Your task to perform on an android device: Show me the best rated vacuum on Walmart. Image 0: 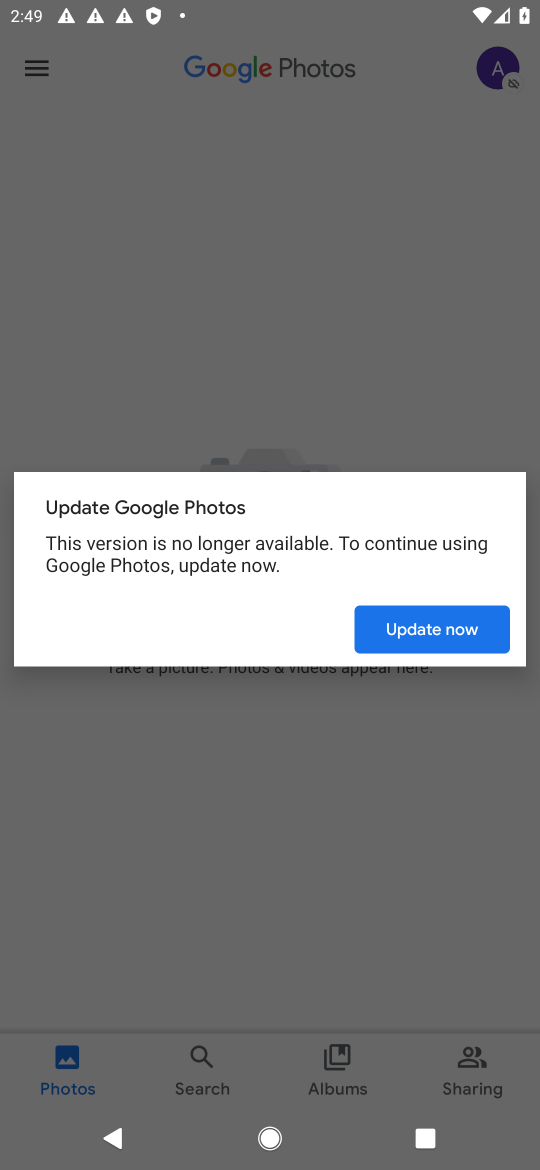
Step 0: press home button
Your task to perform on an android device: Show me the best rated vacuum on Walmart. Image 1: 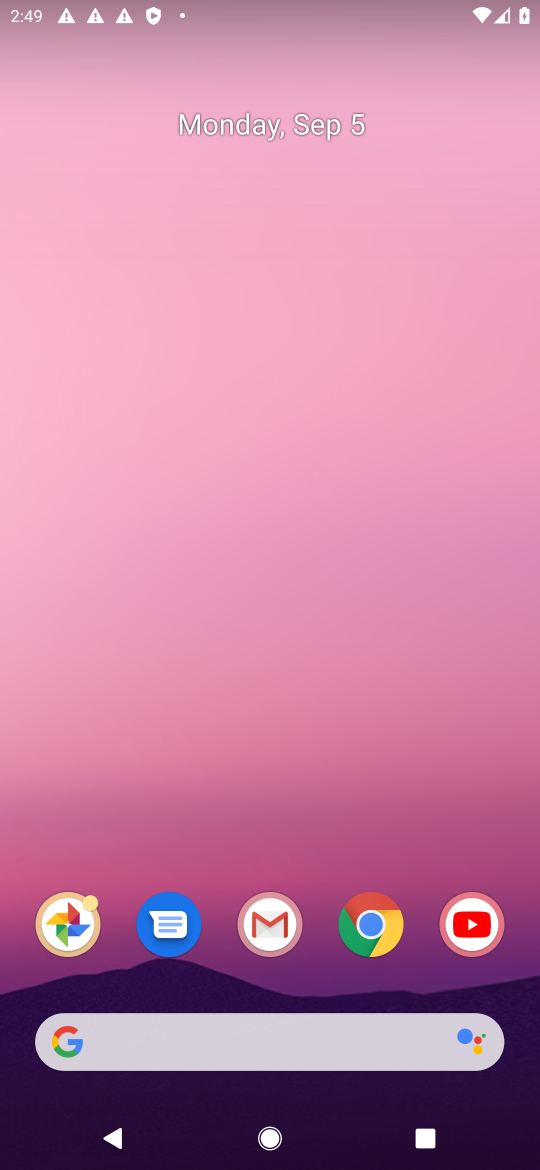
Step 1: click (352, 926)
Your task to perform on an android device: Show me the best rated vacuum on Walmart. Image 2: 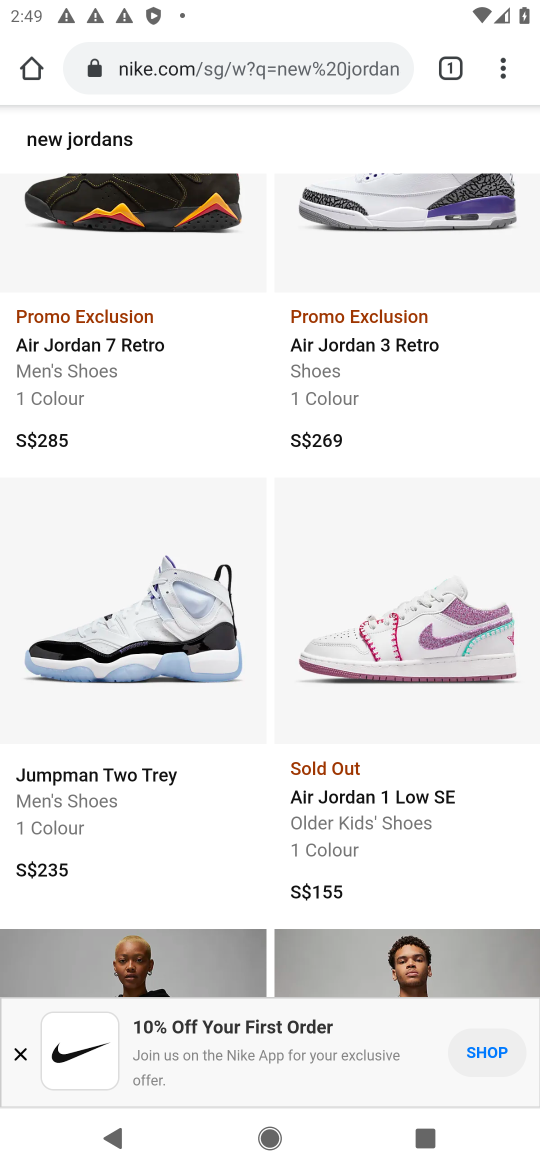
Step 2: click (295, 77)
Your task to perform on an android device: Show me the best rated vacuum on Walmart. Image 3: 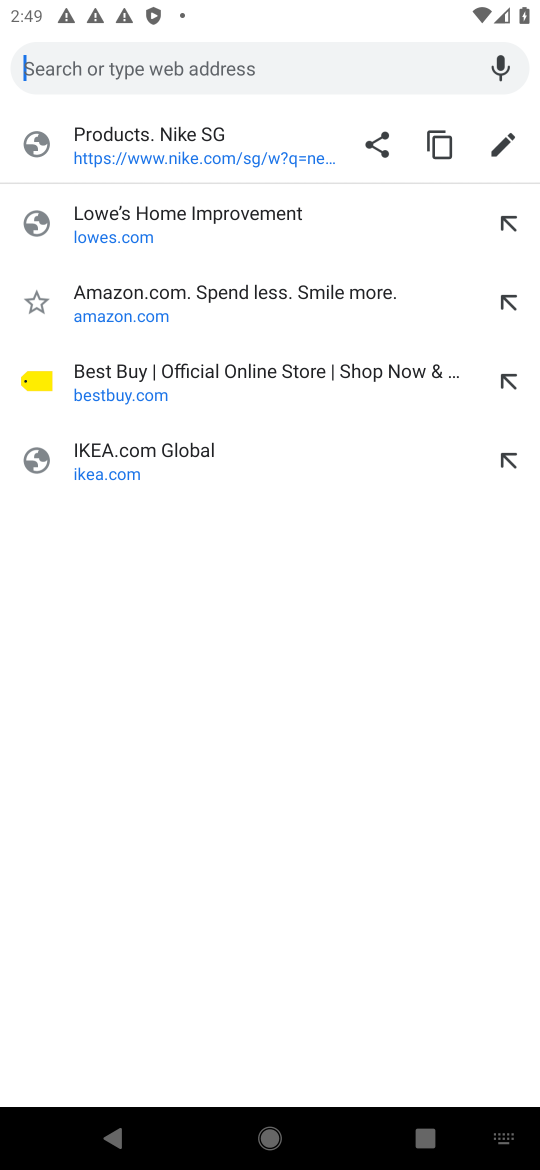
Step 3: type "walmart"
Your task to perform on an android device: Show me the best rated vacuum on Walmart. Image 4: 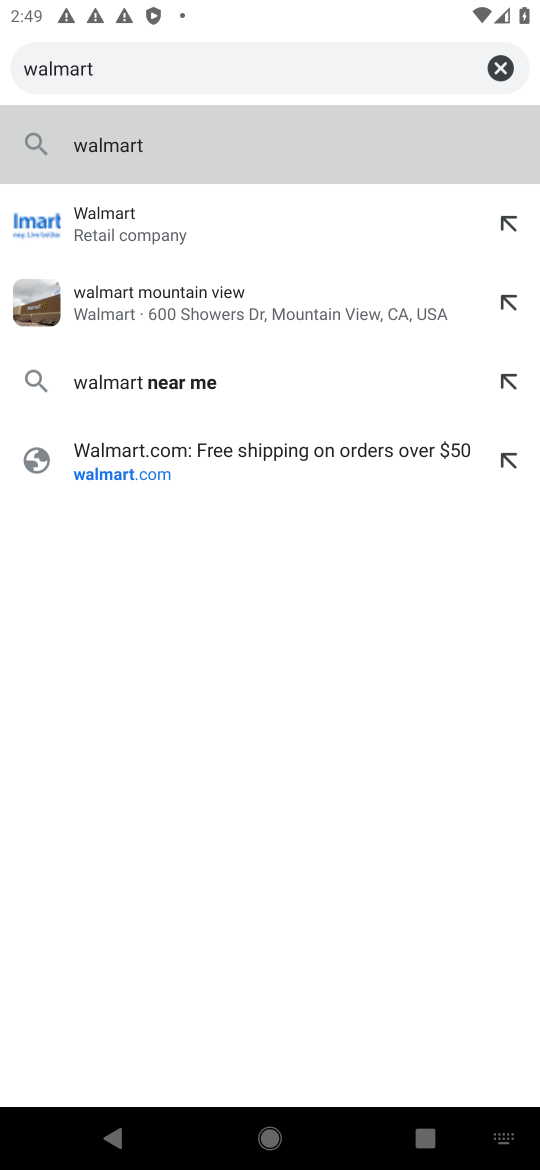
Step 4: click (196, 230)
Your task to perform on an android device: Show me the best rated vacuum on Walmart. Image 5: 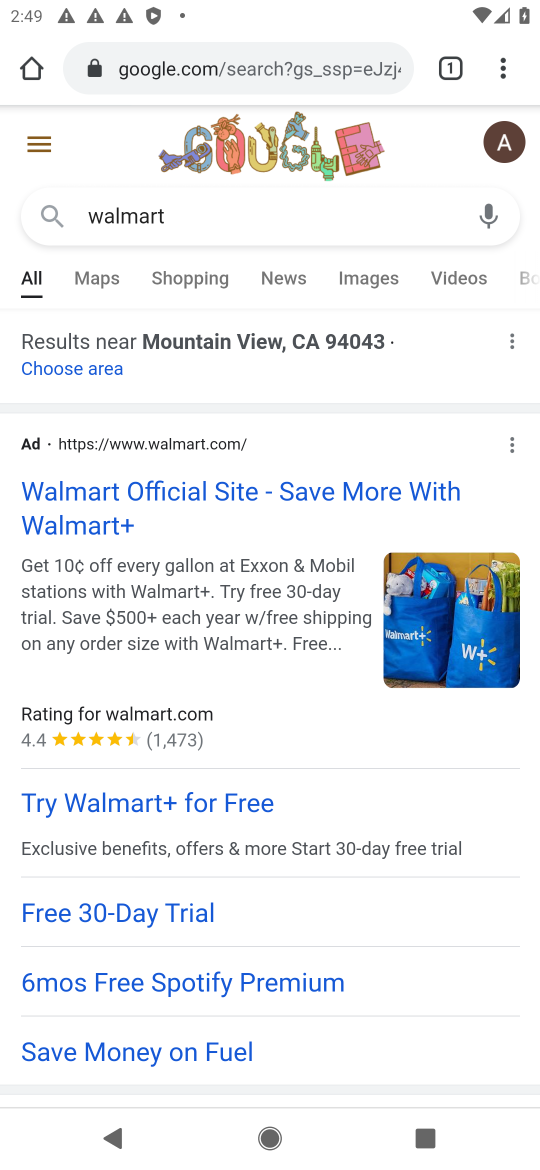
Step 5: drag from (218, 839) to (349, 261)
Your task to perform on an android device: Show me the best rated vacuum on Walmart. Image 6: 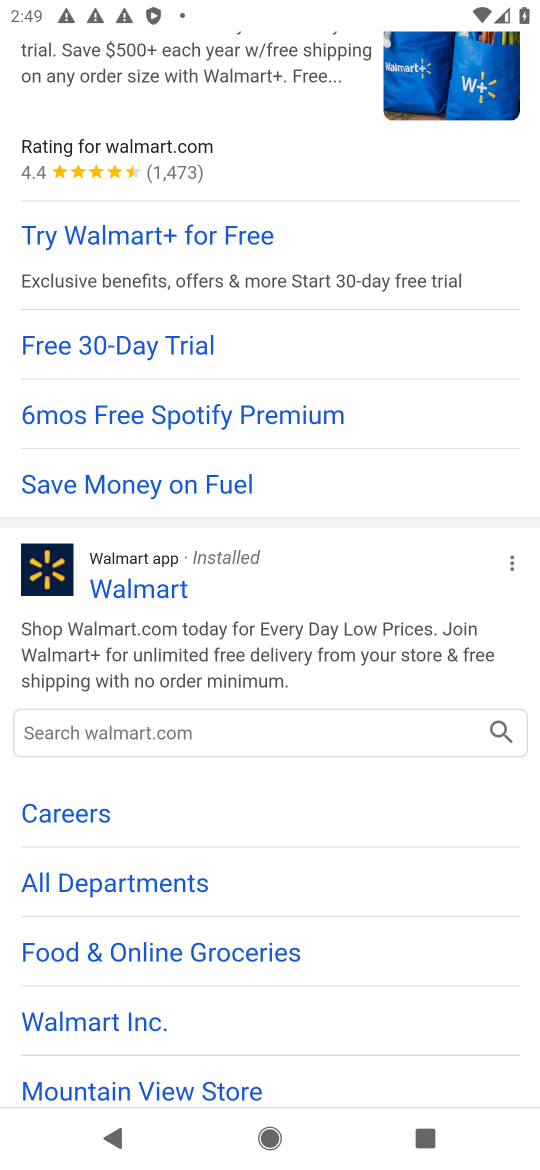
Step 6: click (132, 586)
Your task to perform on an android device: Show me the best rated vacuum on Walmart. Image 7: 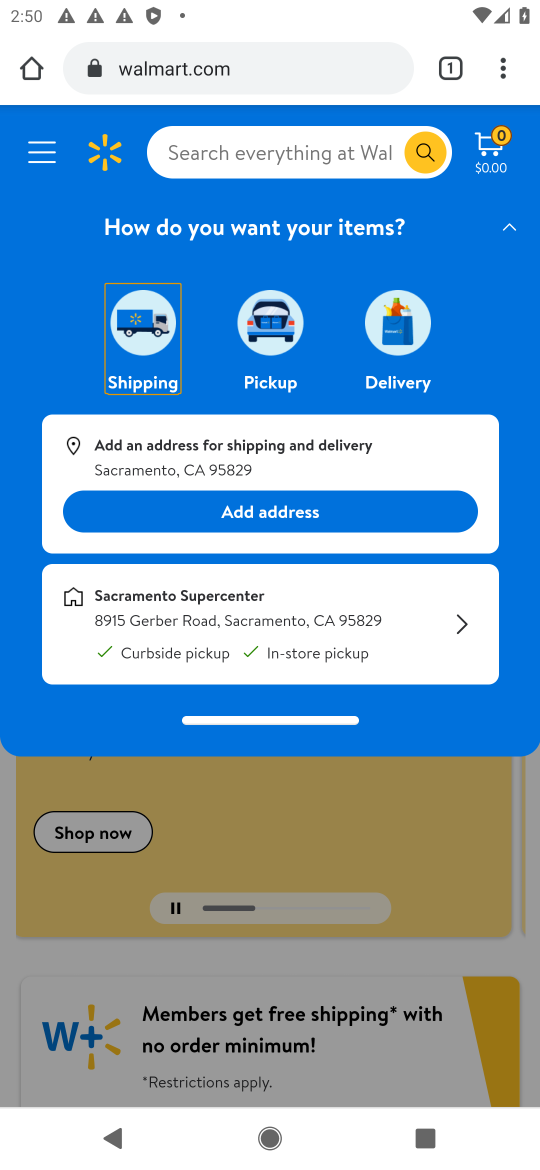
Step 7: drag from (233, 770) to (301, 460)
Your task to perform on an android device: Show me the best rated vacuum on Walmart. Image 8: 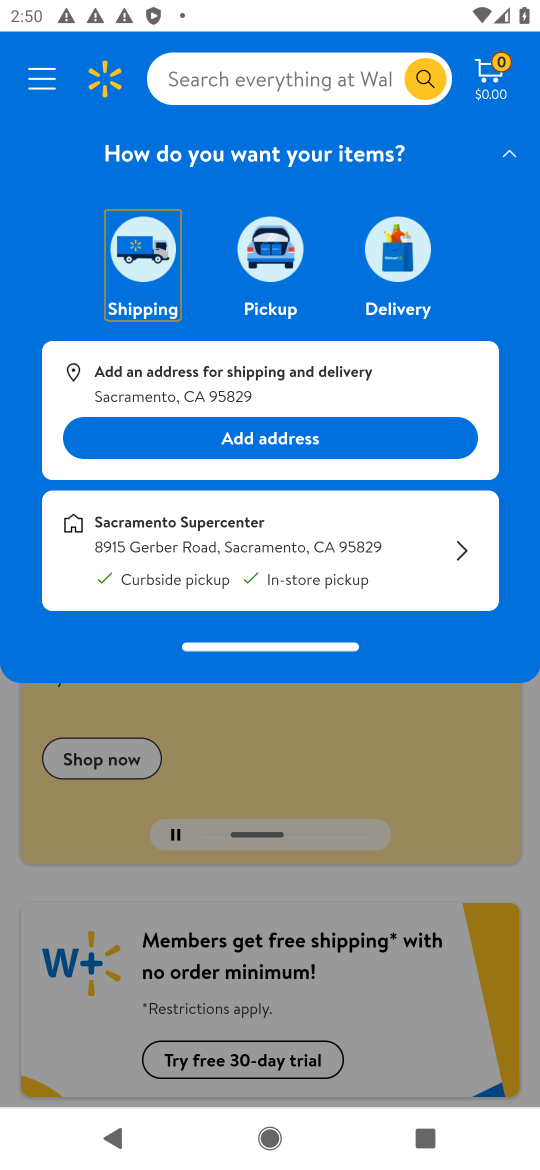
Step 8: drag from (319, 741) to (332, 643)
Your task to perform on an android device: Show me the best rated vacuum on Walmart. Image 9: 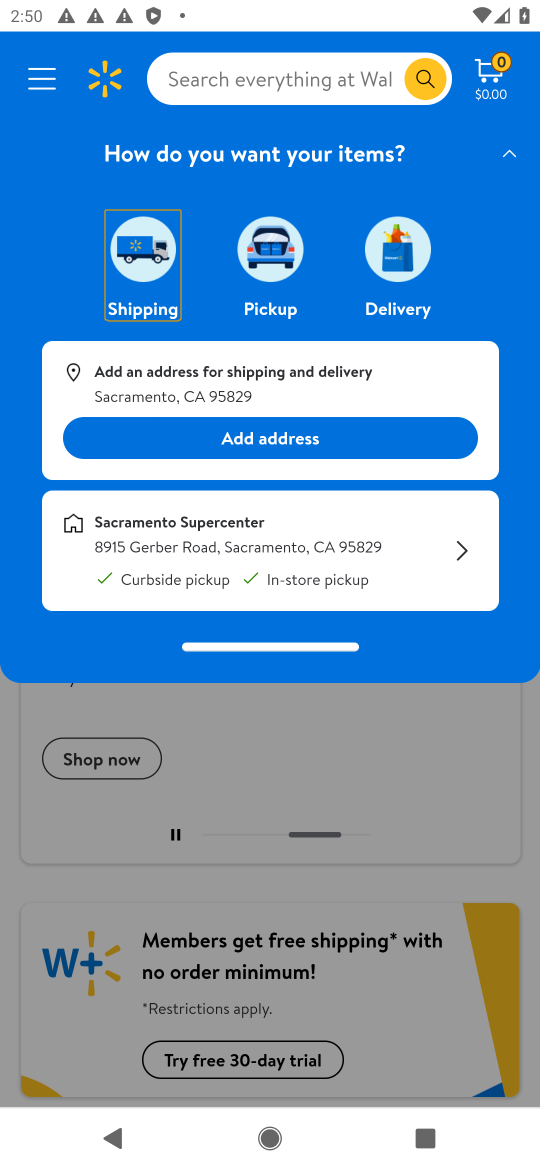
Step 9: drag from (370, 331) to (377, 404)
Your task to perform on an android device: Show me the best rated vacuum on Walmart. Image 10: 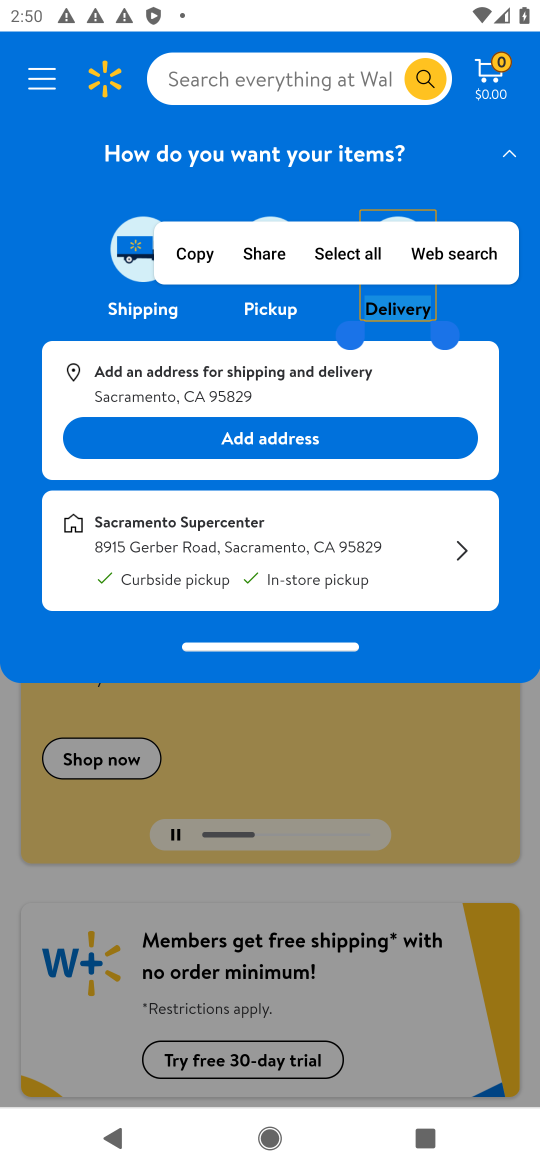
Step 10: click (524, 520)
Your task to perform on an android device: Show me the best rated vacuum on Walmart. Image 11: 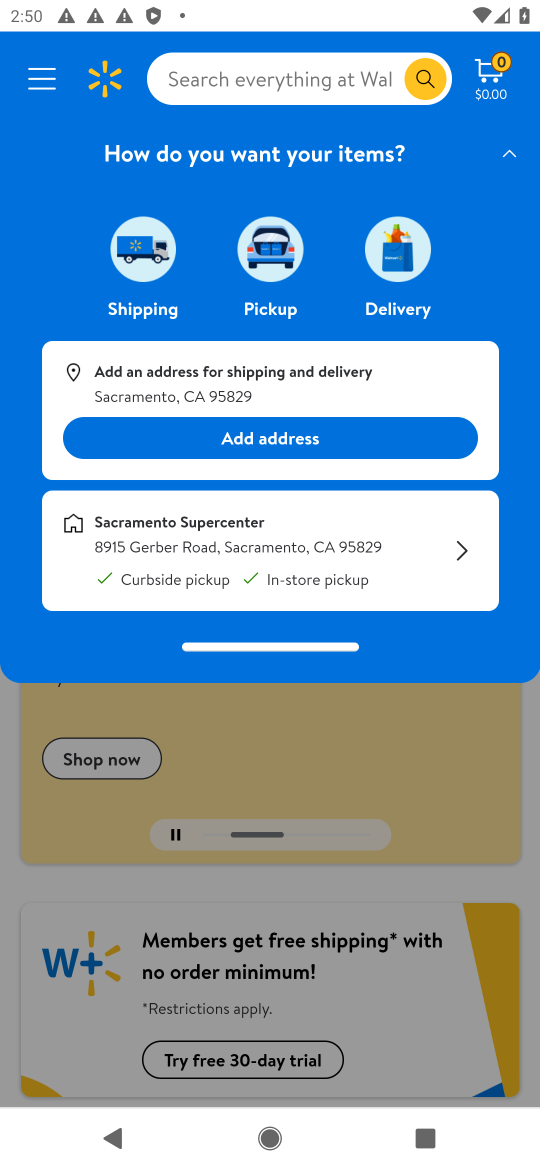
Step 11: click (321, 81)
Your task to perform on an android device: Show me the best rated vacuum on Walmart. Image 12: 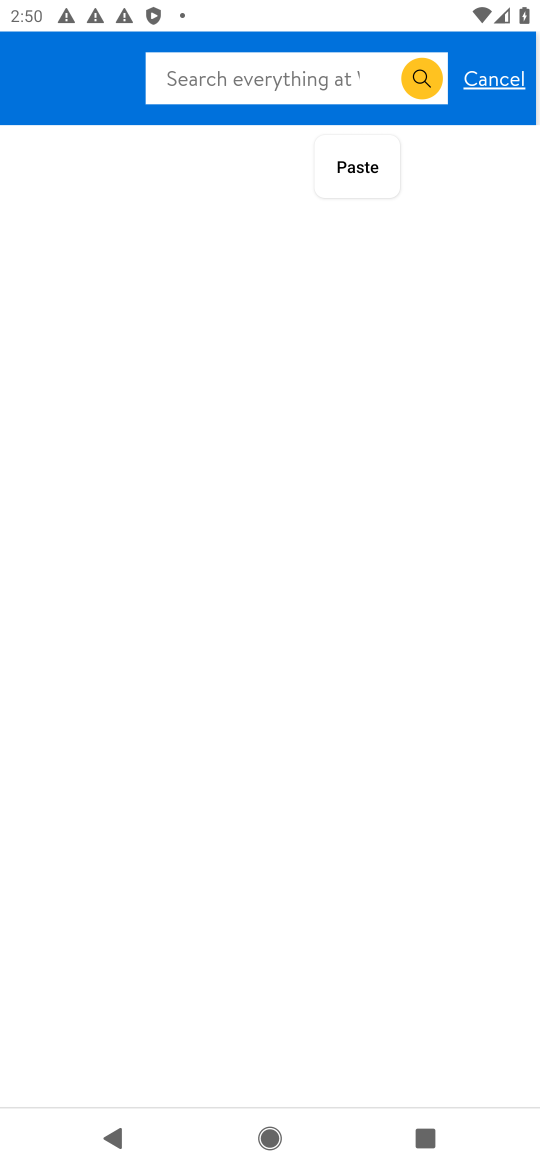
Step 12: click (300, 82)
Your task to perform on an android device: Show me the best rated vacuum on Walmart. Image 13: 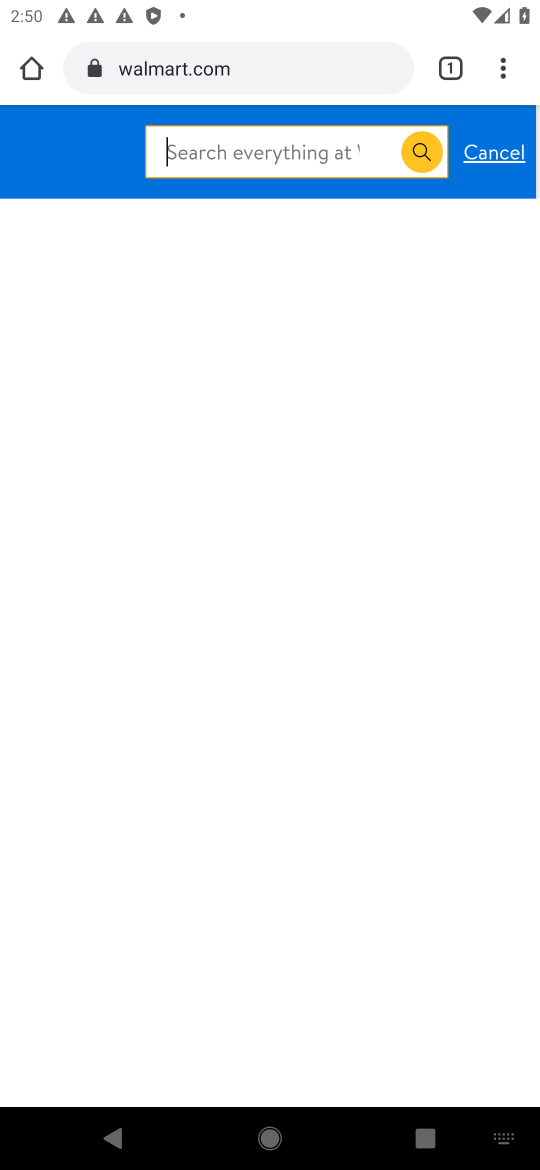
Step 13: type "best rated vacuum"
Your task to perform on an android device: Show me the best rated vacuum on Walmart. Image 14: 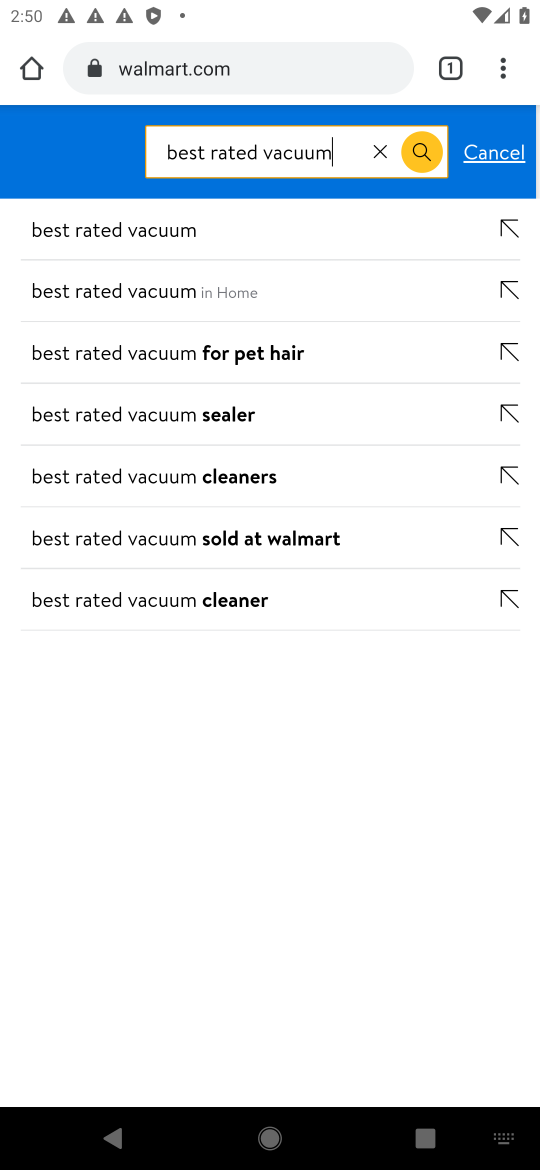
Step 14: click (104, 228)
Your task to perform on an android device: Show me the best rated vacuum on Walmart. Image 15: 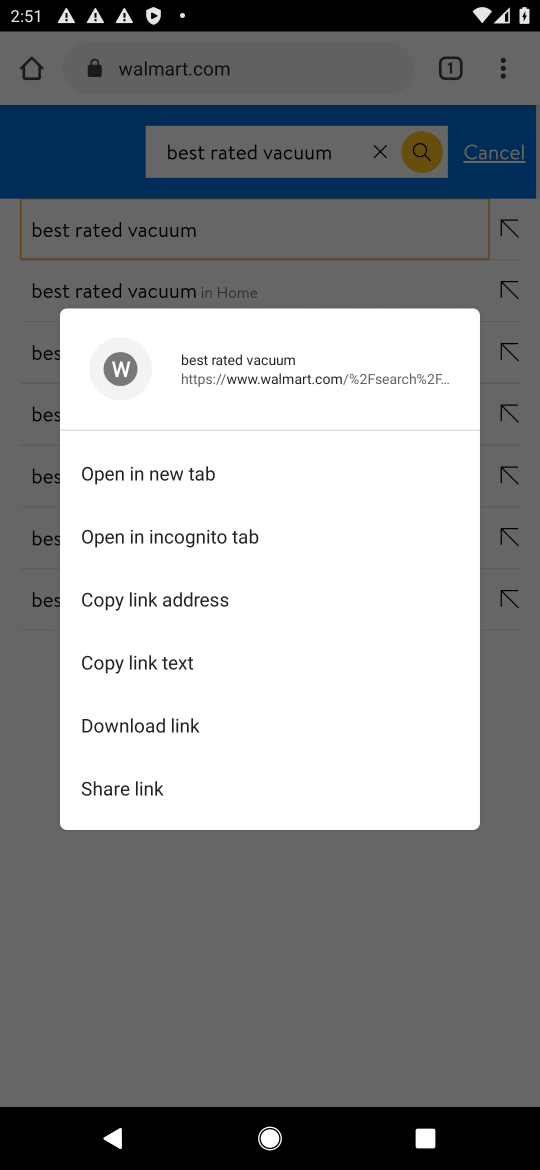
Step 15: click (193, 229)
Your task to perform on an android device: Show me the best rated vacuum on Walmart. Image 16: 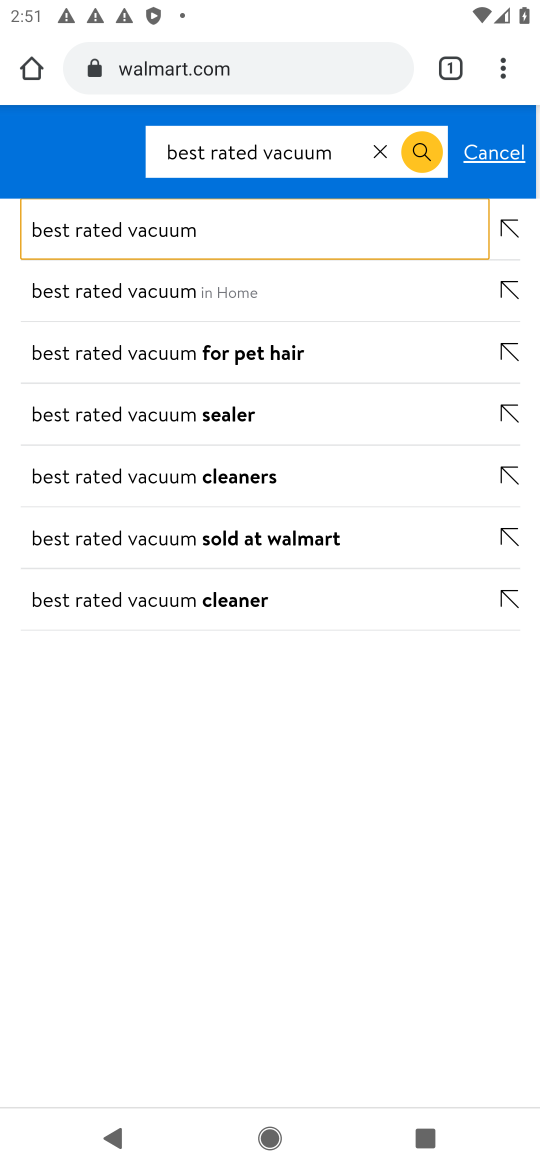
Step 16: click (193, 229)
Your task to perform on an android device: Show me the best rated vacuum on Walmart. Image 17: 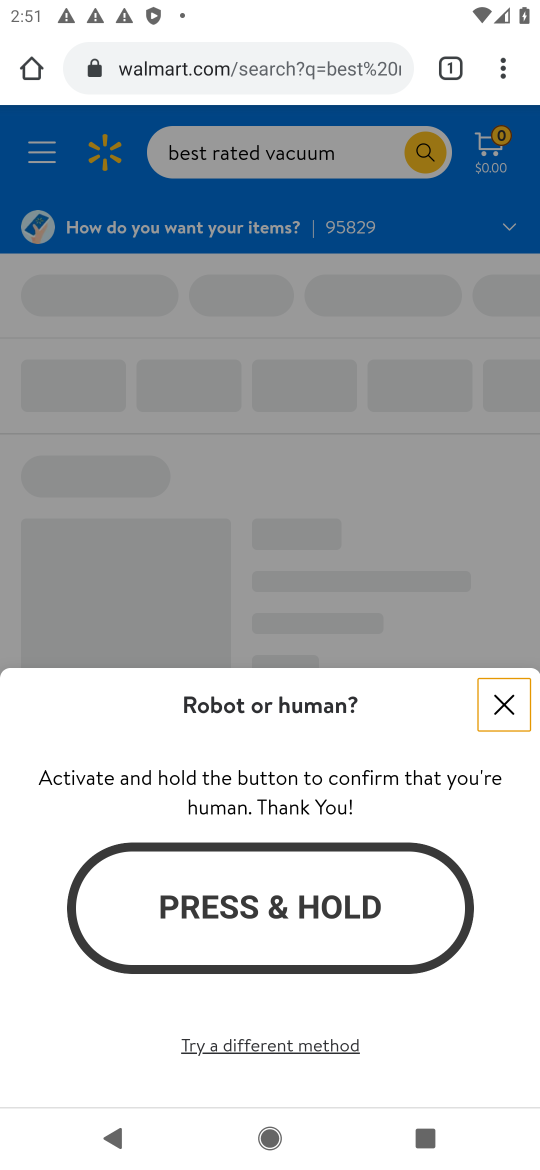
Step 17: click (509, 705)
Your task to perform on an android device: Show me the best rated vacuum on Walmart. Image 18: 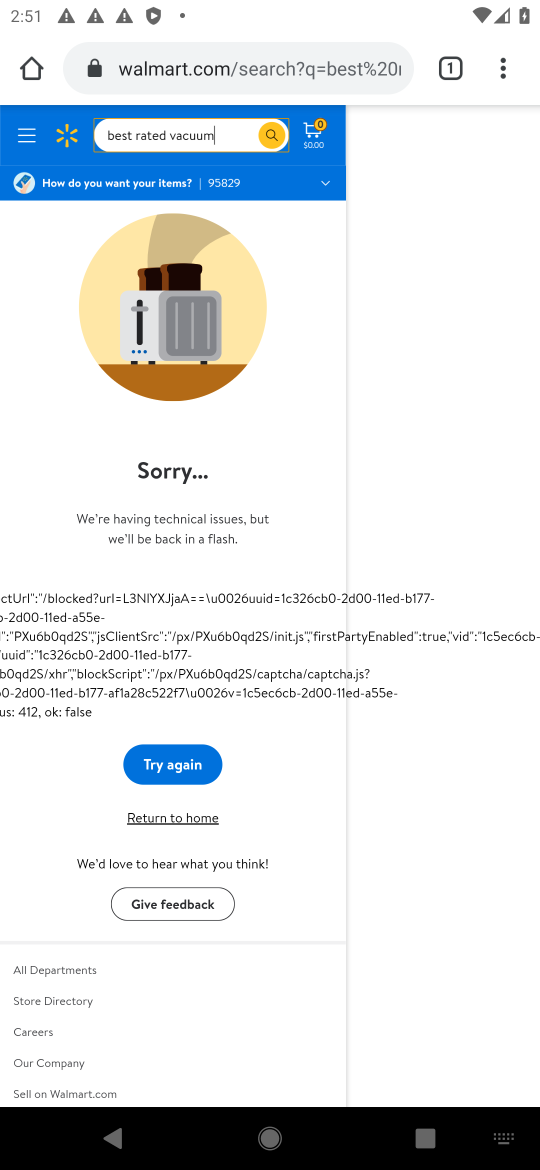
Step 18: task complete